Your task to perform on an android device: See recent photos Image 0: 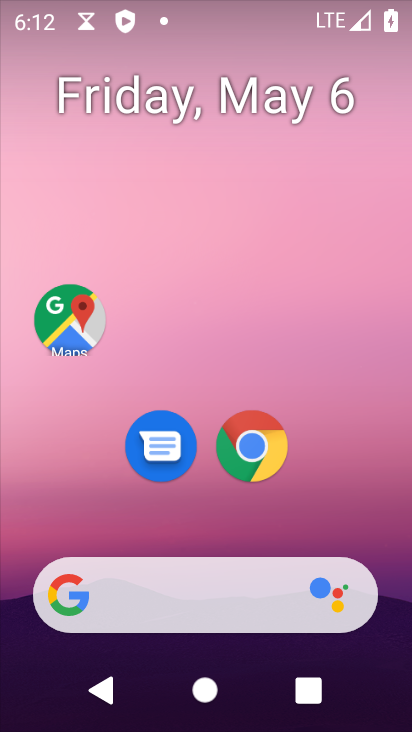
Step 0: drag from (317, 517) to (259, 99)
Your task to perform on an android device: See recent photos Image 1: 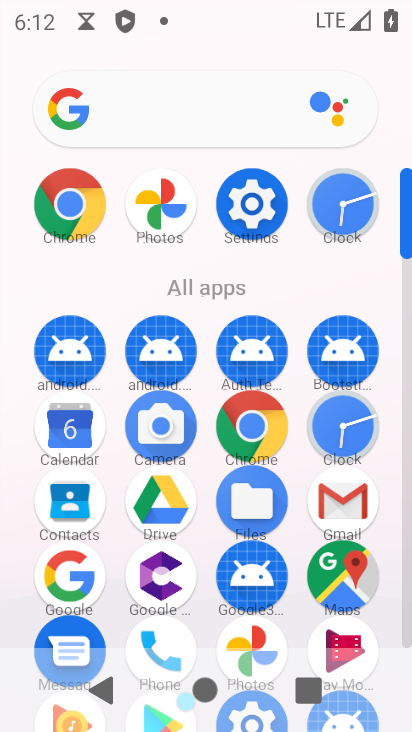
Step 1: drag from (292, 570) to (304, 281)
Your task to perform on an android device: See recent photos Image 2: 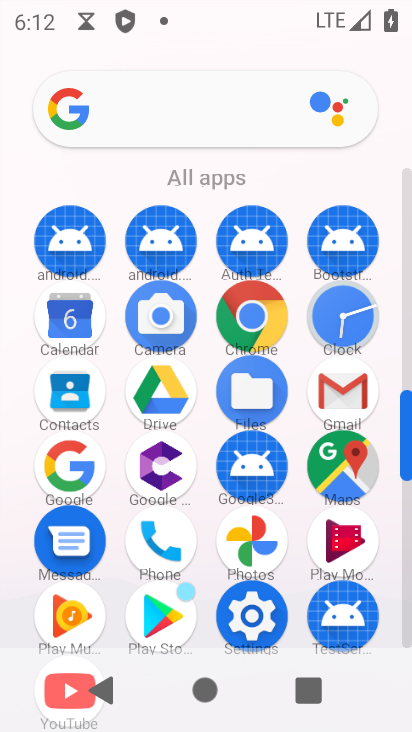
Step 2: click (242, 527)
Your task to perform on an android device: See recent photos Image 3: 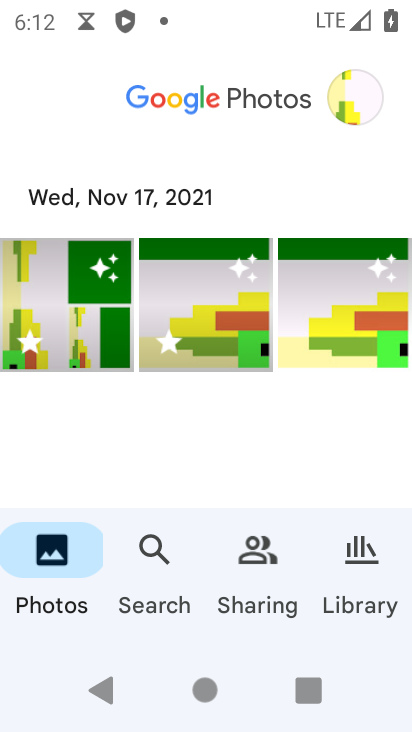
Step 3: click (342, 564)
Your task to perform on an android device: See recent photos Image 4: 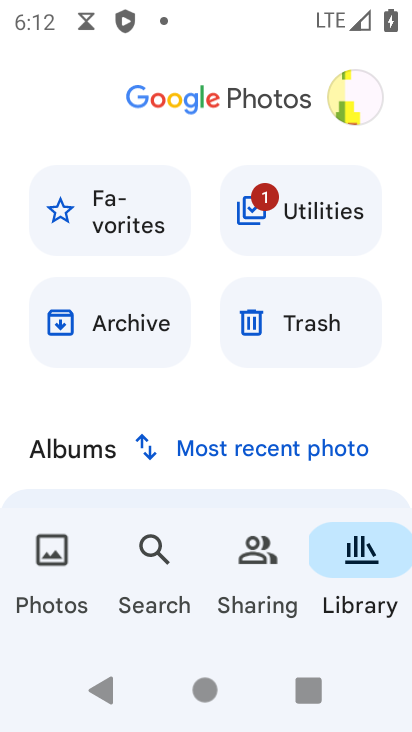
Step 4: click (290, 444)
Your task to perform on an android device: See recent photos Image 5: 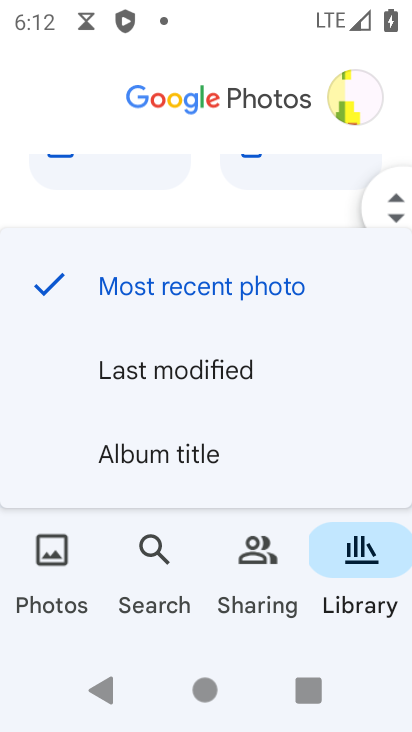
Step 5: click (170, 376)
Your task to perform on an android device: See recent photos Image 6: 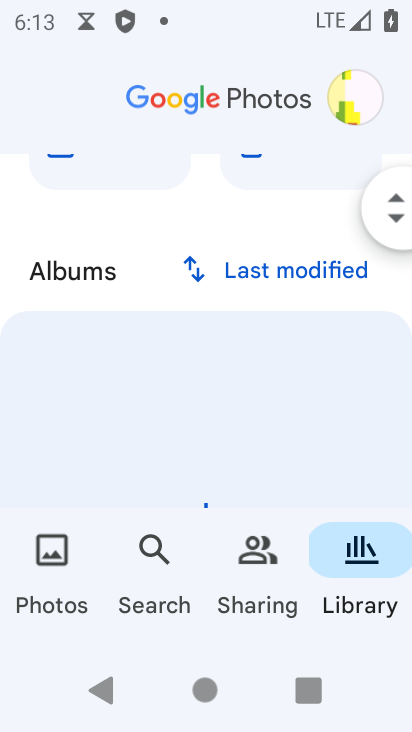
Step 6: click (260, 275)
Your task to perform on an android device: See recent photos Image 7: 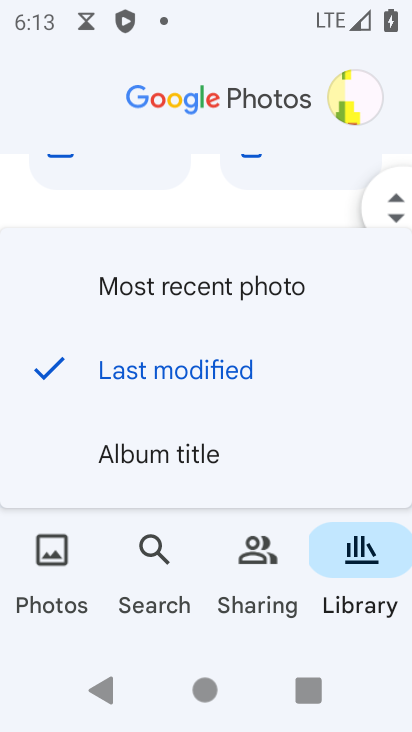
Step 7: click (163, 285)
Your task to perform on an android device: See recent photos Image 8: 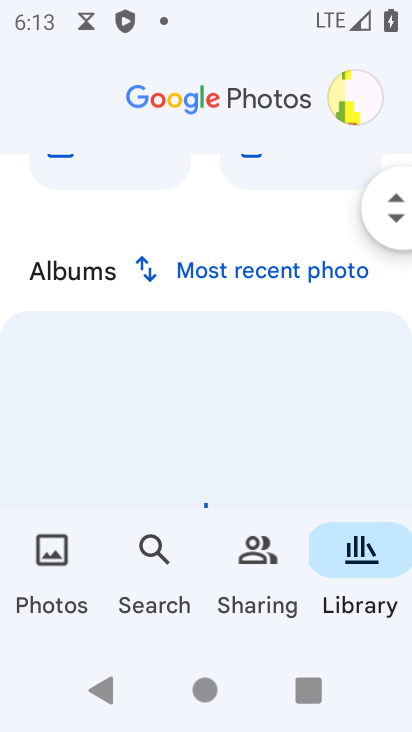
Step 8: click (243, 582)
Your task to perform on an android device: See recent photos Image 9: 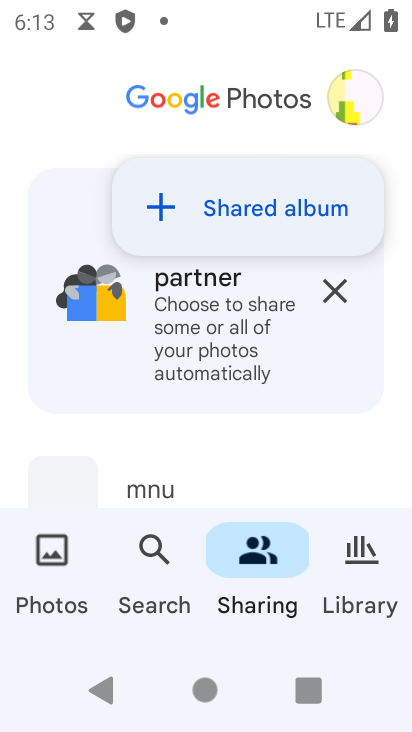
Step 9: drag from (311, 245) to (316, 557)
Your task to perform on an android device: See recent photos Image 10: 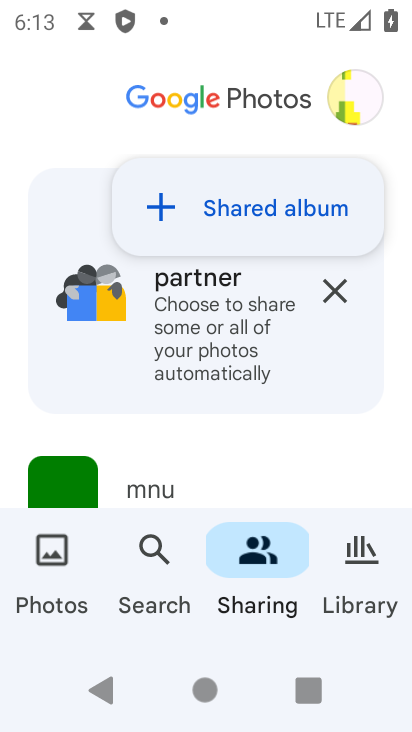
Step 10: click (377, 583)
Your task to perform on an android device: See recent photos Image 11: 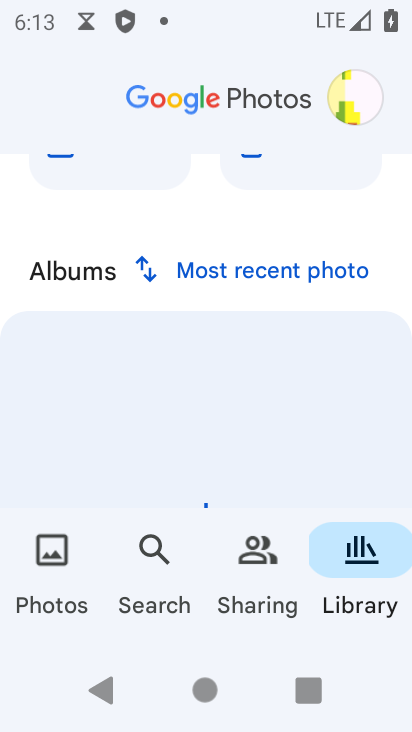
Step 11: task complete